Your task to perform on an android device: Open notification settings Image 0: 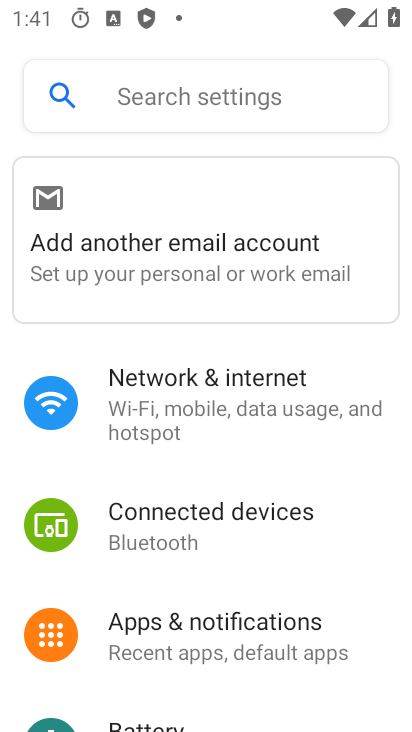
Step 0: click (232, 631)
Your task to perform on an android device: Open notification settings Image 1: 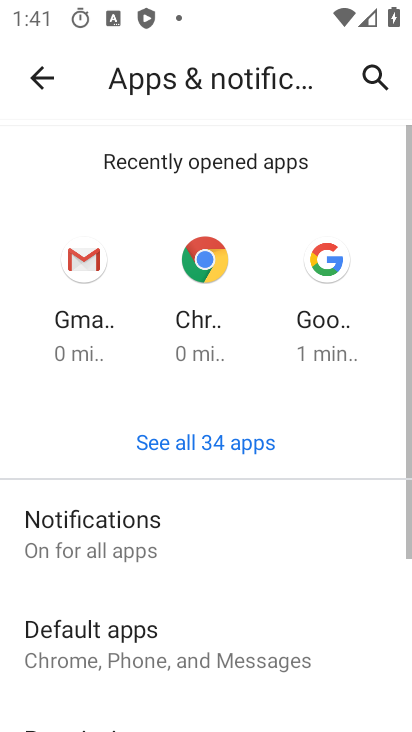
Step 1: drag from (234, 658) to (283, 318)
Your task to perform on an android device: Open notification settings Image 2: 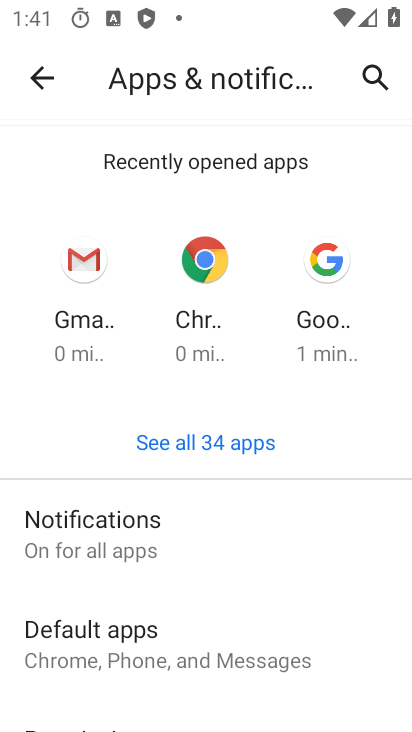
Step 2: drag from (254, 688) to (276, 302)
Your task to perform on an android device: Open notification settings Image 3: 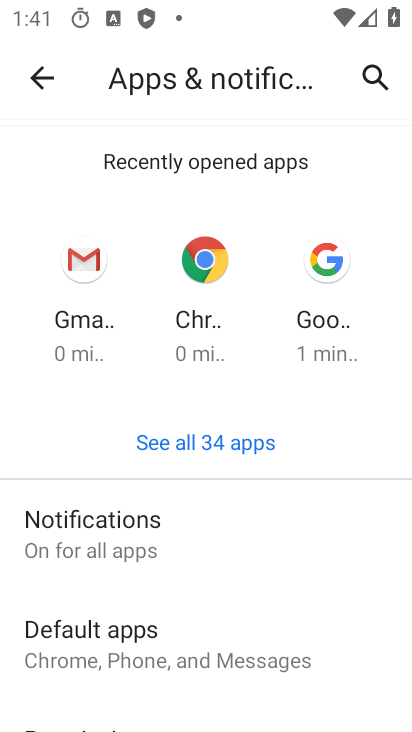
Step 3: drag from (216, 676) to (226, 335)
Your task to perform on an android device: Open notification settings Image 4: 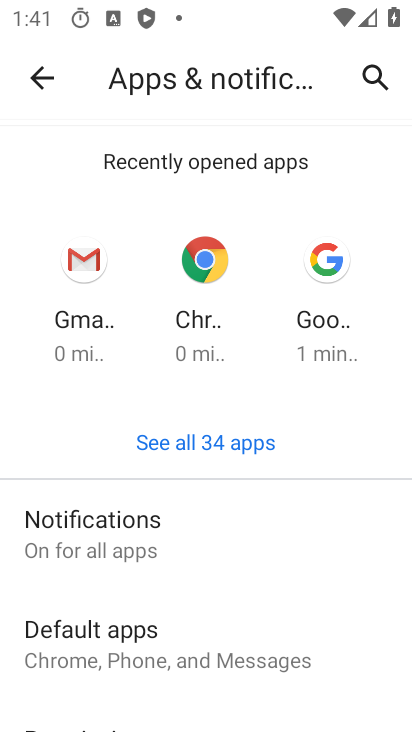
Step 4: drag from (137, 619) to (188, 266)
Your task to perform on an android device: Open notification settings Image 5: 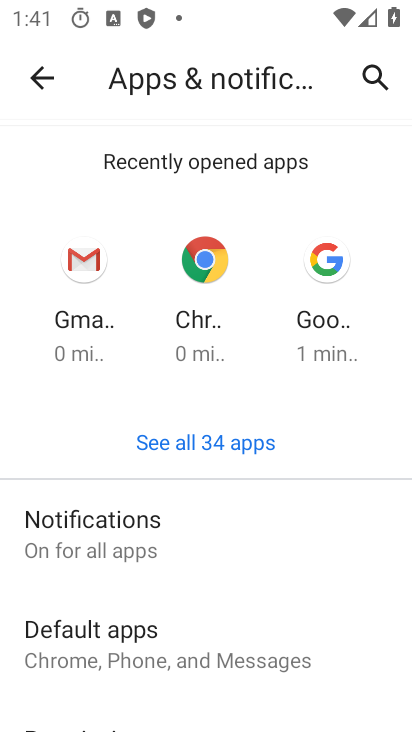
Step 5: click (106, 521)
Your task to perform on an android device: Open notification settings Image 6: 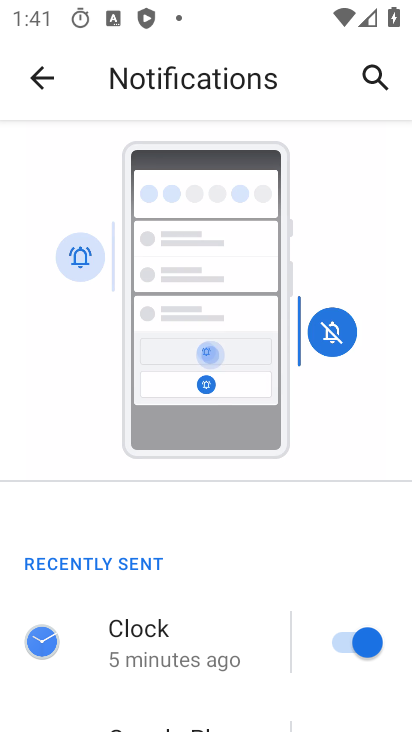
Step 6: task complete